Your task to perform on an android device: Check the weather Image 0: 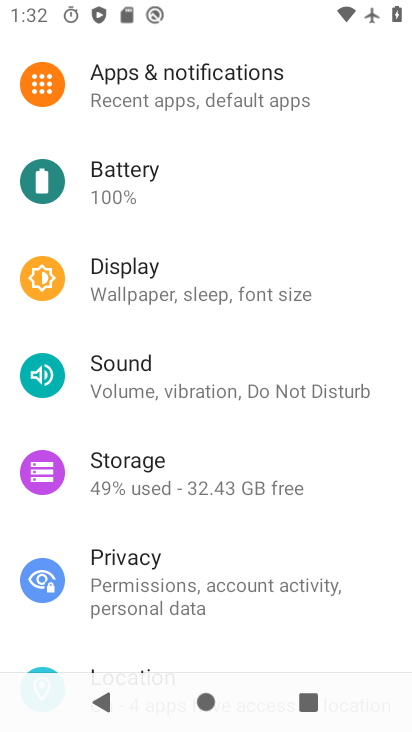
Step 0: press home button
Your task to perform on an android device: Check the weather Image 1: 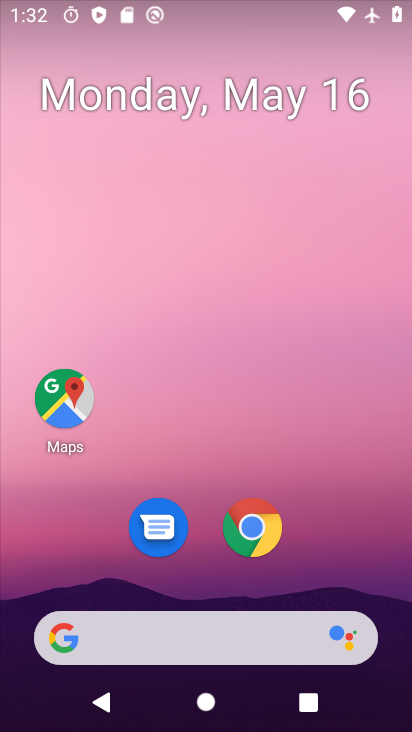
Step 1: click (67, 641)
Your task to perform on an android device: Check the weather Image 2: 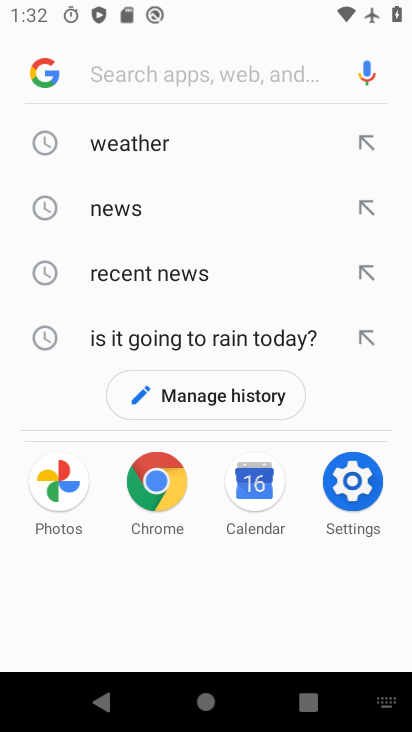
Step 2: click (137, 142)
Your task to perform on an android device: Check the weather Image 3: 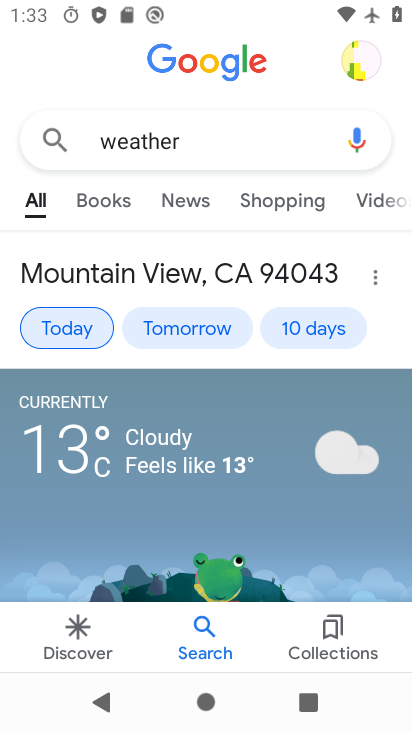
Step 3: task complete